Your task to perform on an android device: change text size in settings app Image 0: 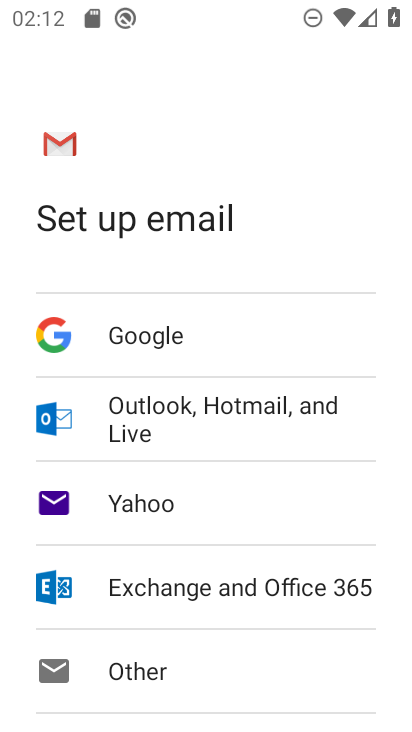
Step 0: press home button
Your task to perform on an android device: change text size in settings app Image 1: 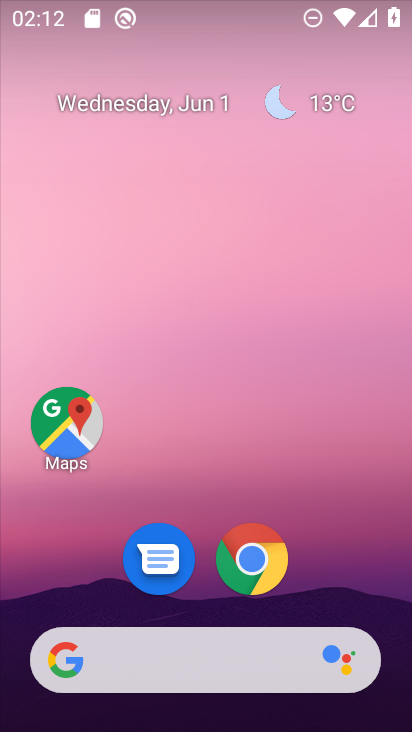
Step 1: drag from (391, 639) to (358, 110)
Your task to perform on an android device: change text size in settings app Image 2: 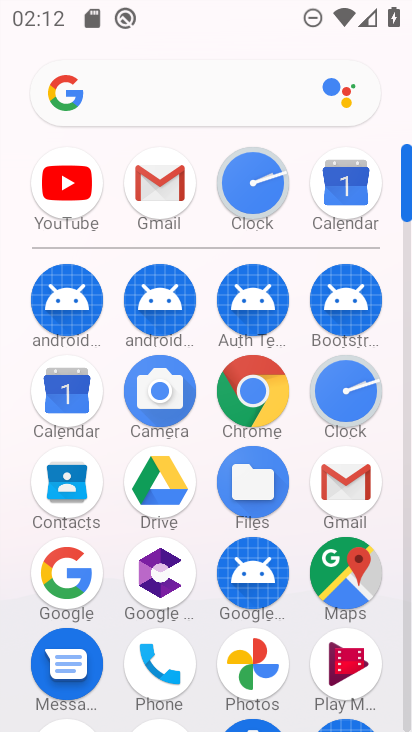
Step 2: drag from (194, 653) to (208, 252)
Your task to perform on an android device: change text size in settings app Image 3: 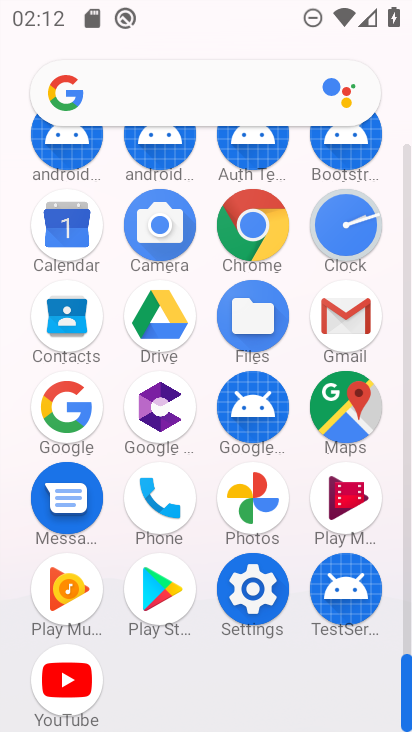
Step 3: click (248, 609)
Your task to perform on an android device: change text size in settings app Image 4: 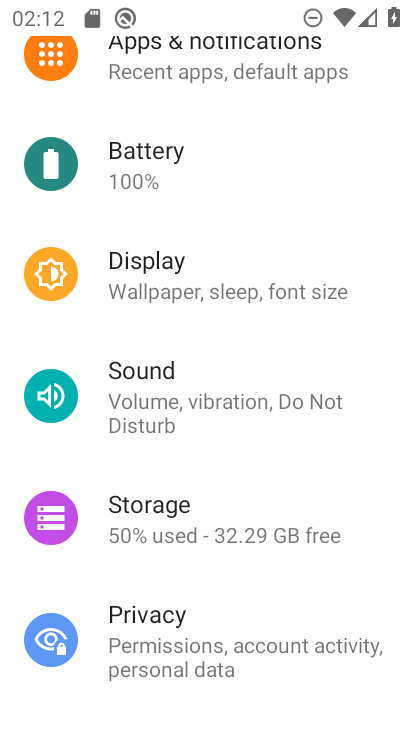
Step 4: drag from (244, 669) to (256, 237)
Your task to perform on an android device: change text size in settings app Image 5: 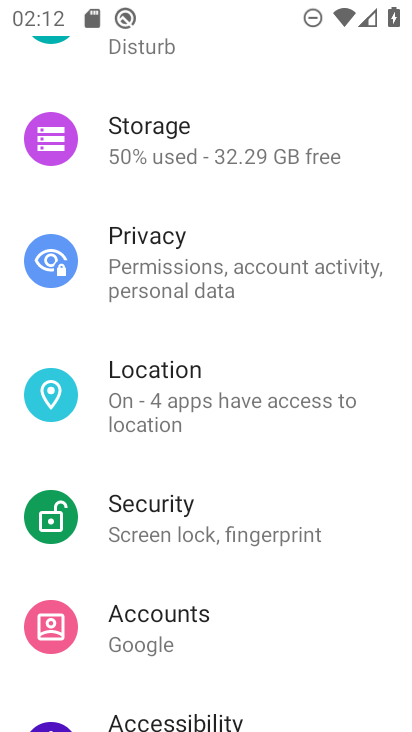
Step 5: drag from (239, 153) to (263, 571)
Your task to perform on an android device: change text size in settings app Image 6: 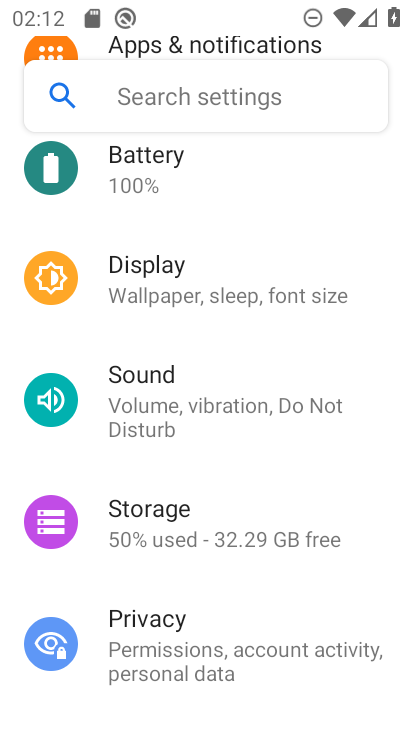
Step 6: click (136, 283)
Your task to perform on an android device: change text size in settings app Image 7: 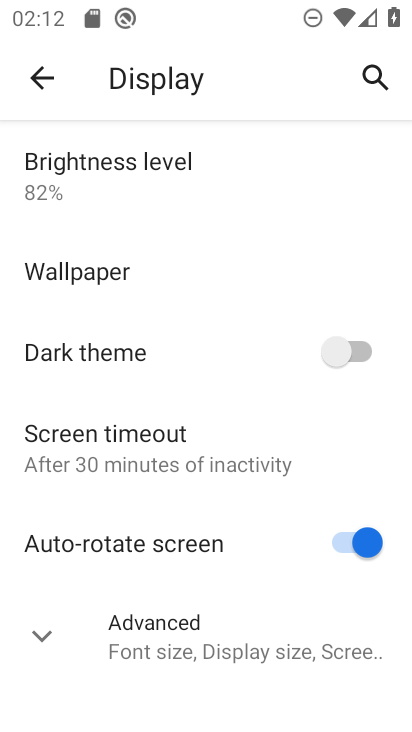
Step 7: click (59, 635)
Your task to perform on an android device: change text size in settings app Image 8: 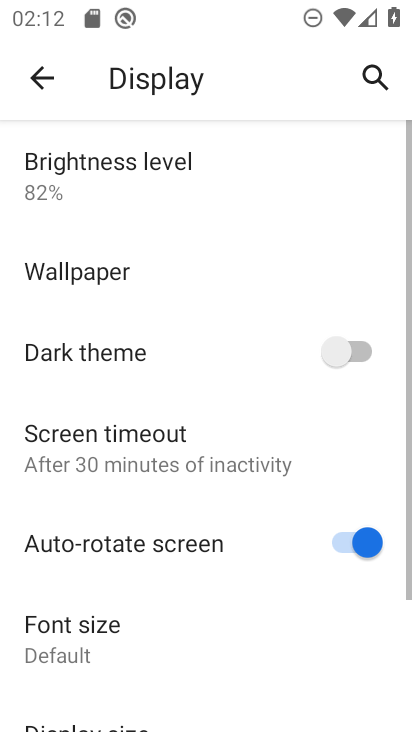
Step 8: drag from (222, 630) to (241, 294)
Your task to perform on an android device: change text size in settings app Image 9: 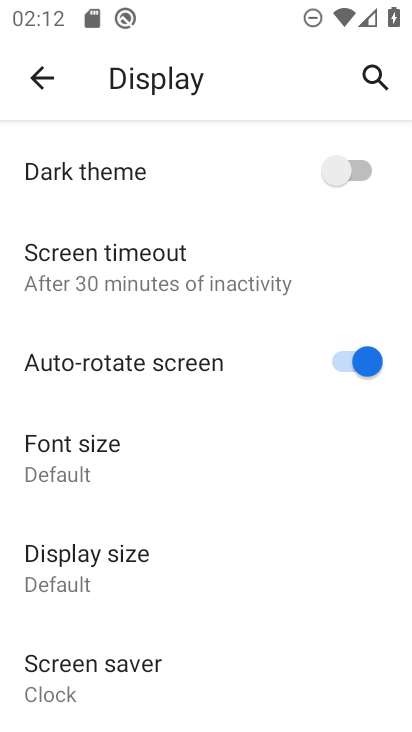
Step 9: click (64, 452)
Your task to perform on an android device: change text size in settings app Image 10: 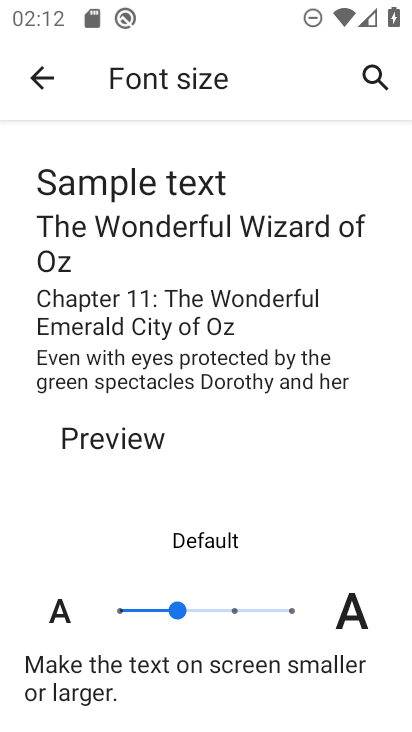
Step 10: click (235, 613)
Your task to perform on an android device: change text size in settings app Image 11: 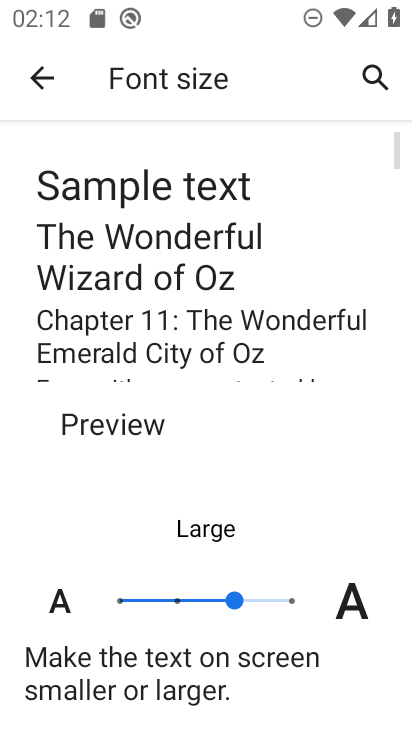
Step 11: task complete